Your task to perform on an android device: turn on wifi Image 0: 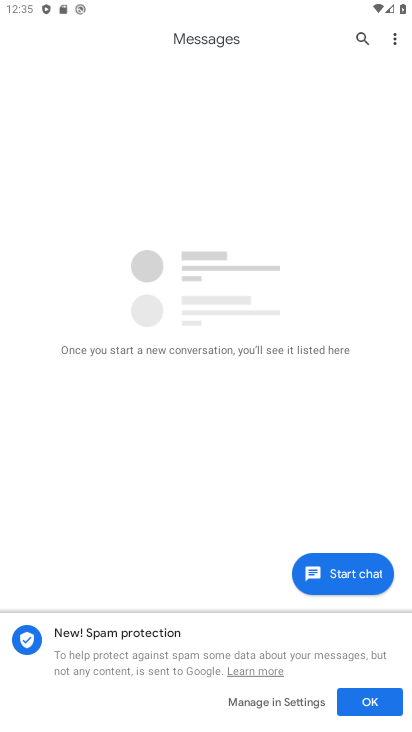
Step 0: drag from (12, 696) to (410, 128)
Your task to perform on an android device: turn on wifi Image 1: 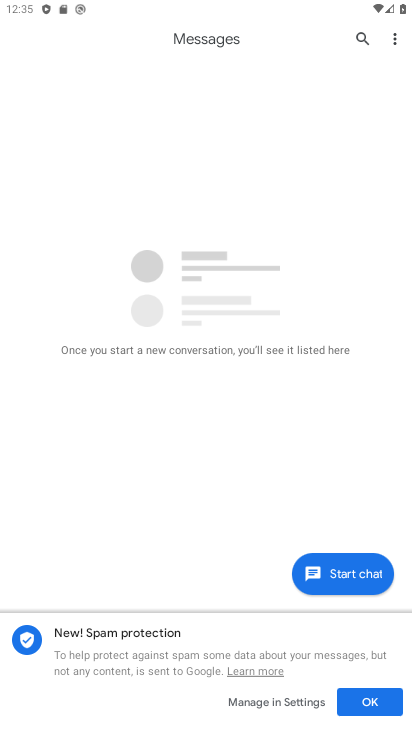
Step 1: press home button
Your task to perform on an android device: turn on wifi Image 2: 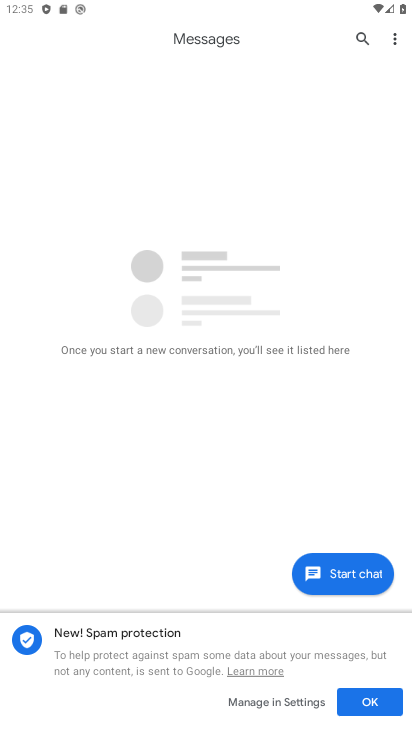
Step 2: click (301, 99)
Your task to perform on an android device: turn on wifi Image 3: 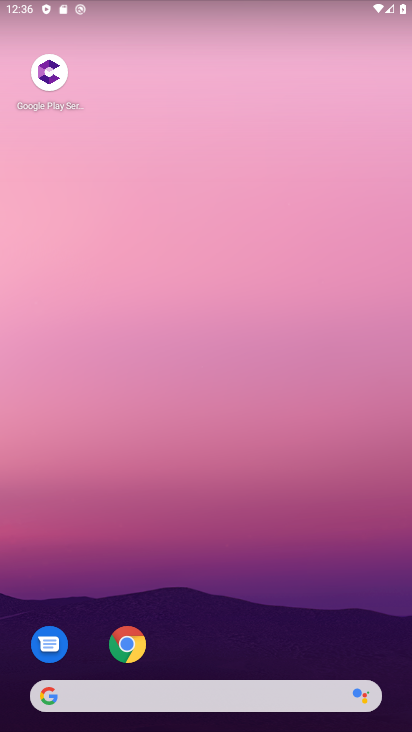
Step 3: drag from (17, 693) to (272, 3)
Your task to perform on an android device: turn on wifi Image 4: 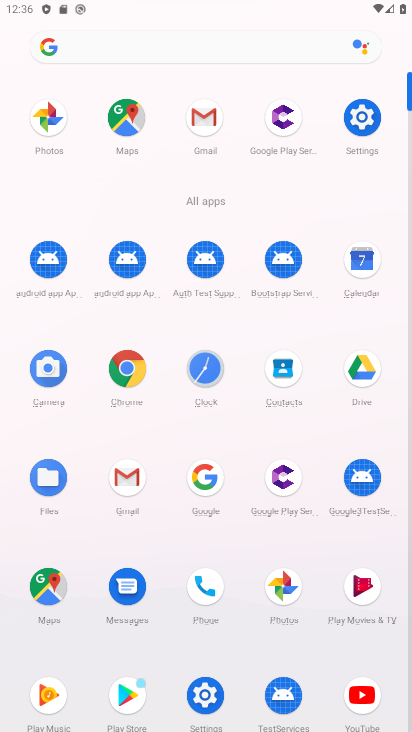
Step 4: click (210, 690)
Your task to perform on an android device: turn on wifi Image 5: 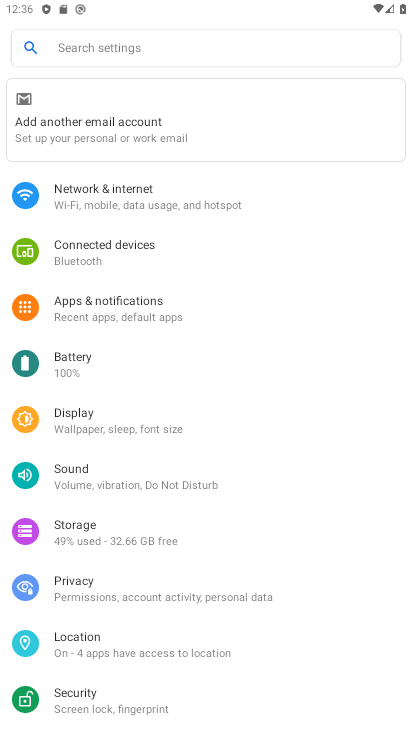
Step 5: click (116, 199)
Your task to perform on an android device: turn on wifi Image 6: 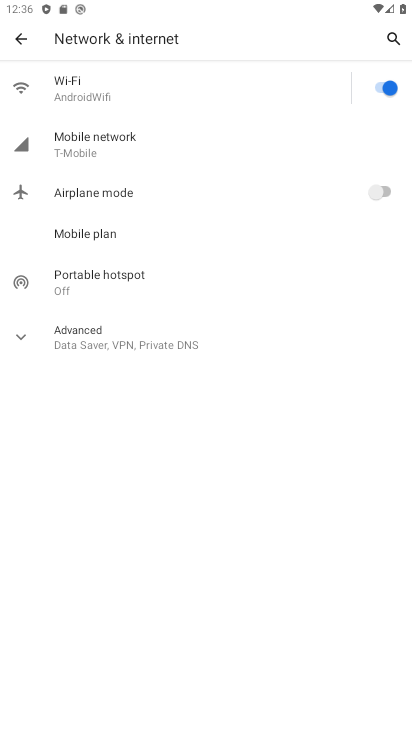
Step 6: click (87, 86)
Your task to perform on an android device: turn on wifi Image 7: 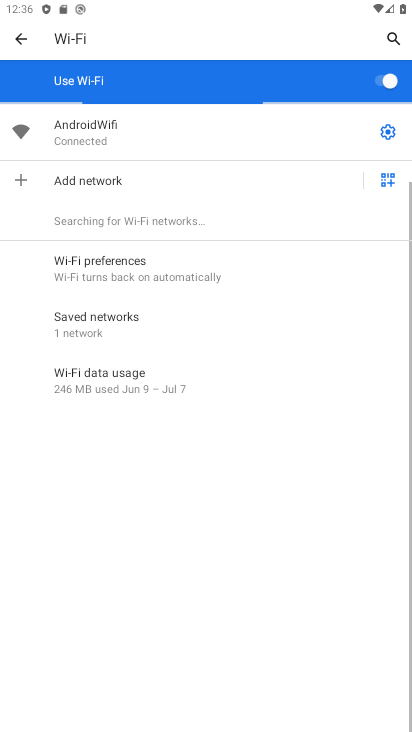
Step 7: click (115, 83)
Your task to perform on an android device: turn on wifi Image 8: 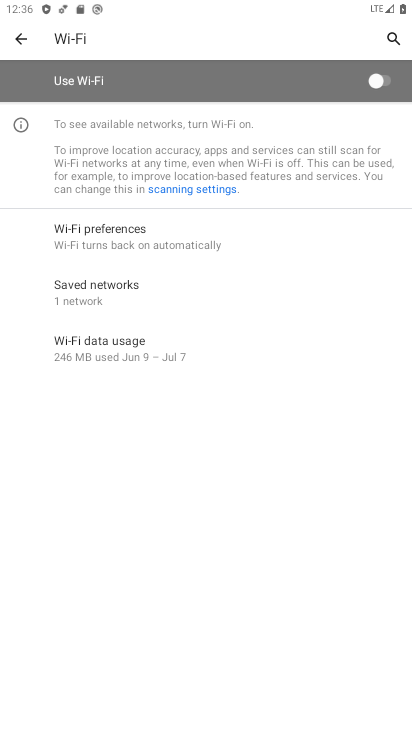
Step 8: click (377, 79)
Your task to perform on an android device: turn on wifi Image 9: 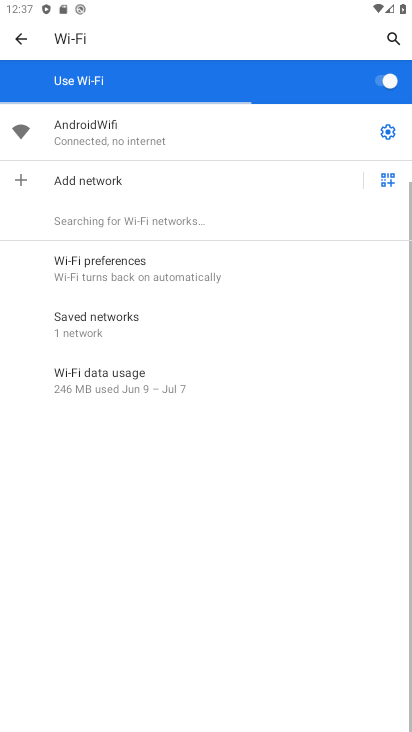
Step 9: task complete